Your task to perform on an android device: change keyboard looks Image 0: 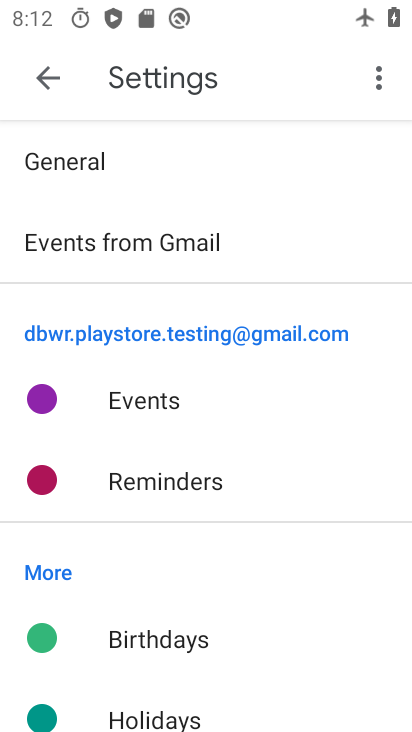
Step 0: press back button
Your task to perform on an android device: change keyboard looks Image 1: 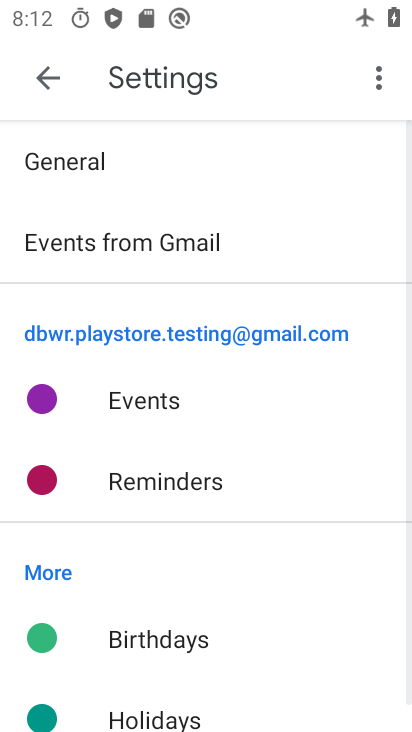
Step 1: press back button
Your task to perform on an android device: change keyboard looks Image 2: 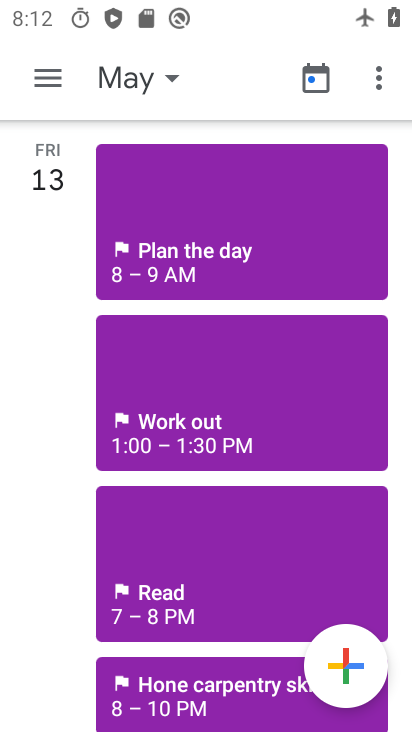
Step 2: press back button
Your task to perform on an android device: change keyboard looks Image 3: 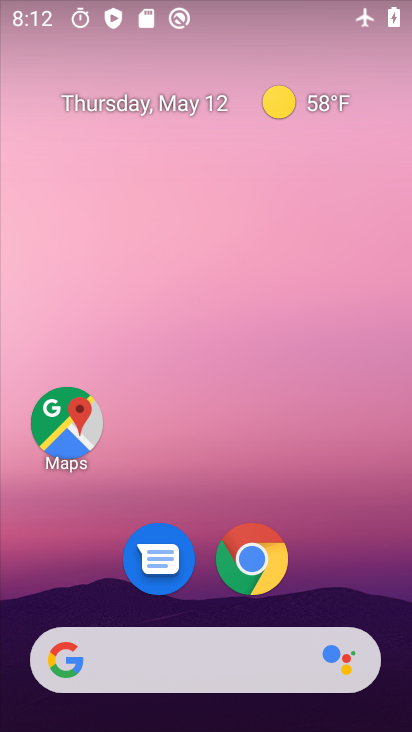
Step 3: drag from (314, 600) to (212, 36)
Your task to perform on an android device: change keyboard looks Image 4: 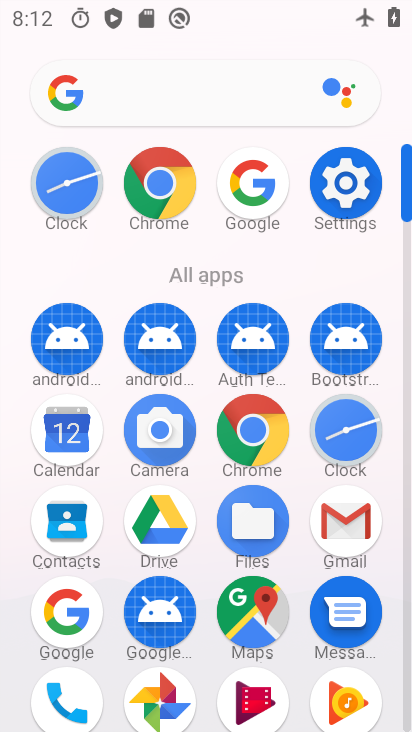
Step 4: click (347, 185)
Your task to perform on an android device: change keyboard looks Image 5: 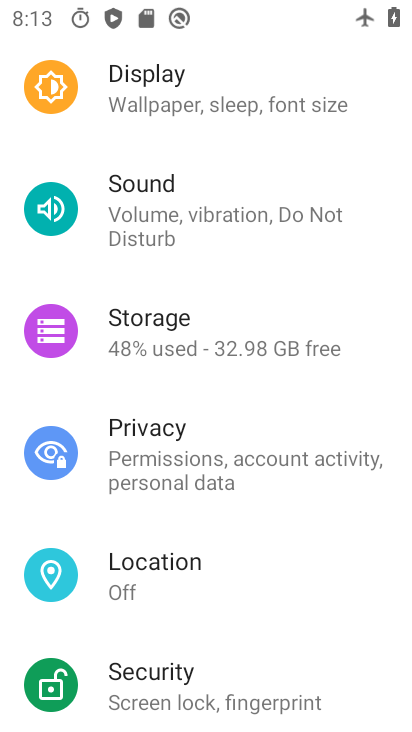
Step 5: drag from (233, 540) to (274, 397)
Your task to perform on an android device: change keyboard looks Image 6: 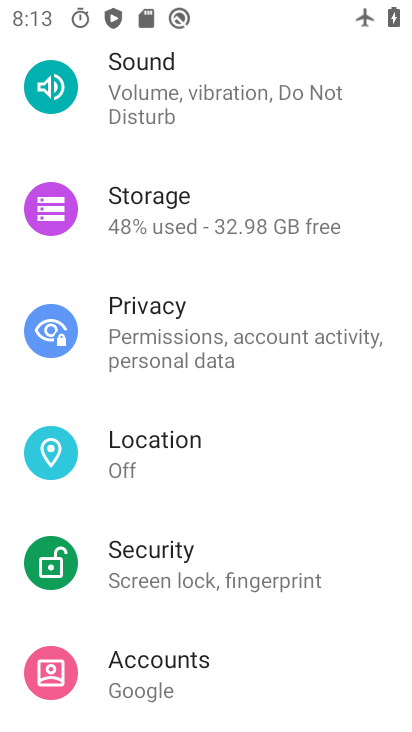
Step 6: drag from (187, 600) to (238, 475)
Your task to perform on an android device: change keyboard looks Image 7: 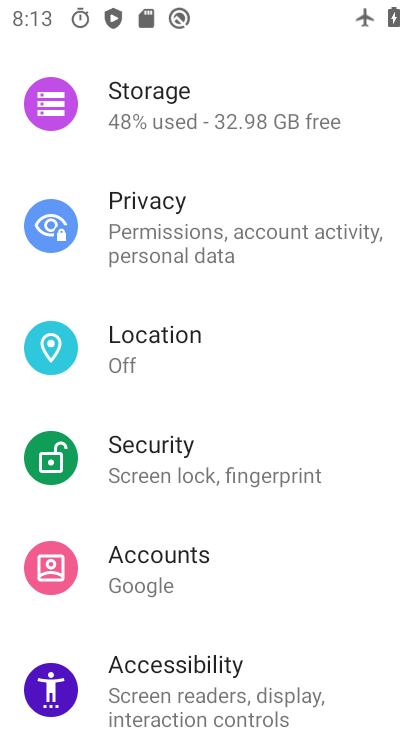
Step 7: drag from (184, 600) to (262, 495)
Your task to perform on an android device: change keyboard looks Image 8: 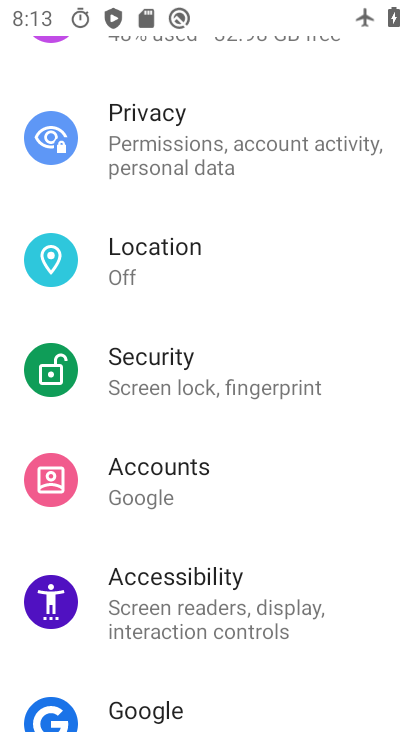
Step 8: drag from (223, 591) to (273, 498)
Your task to perform on an android device: change keyboard looks Image 9: 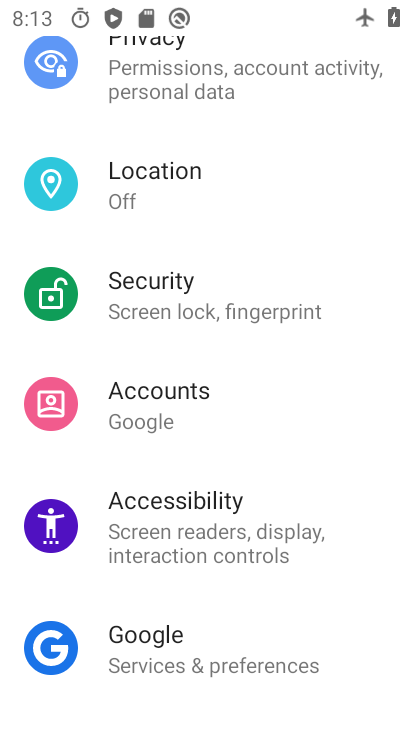
Step 9: drag from (195, 608) to (270, 457)
Your task to perform on an android device: change keyboard looks Image 10: 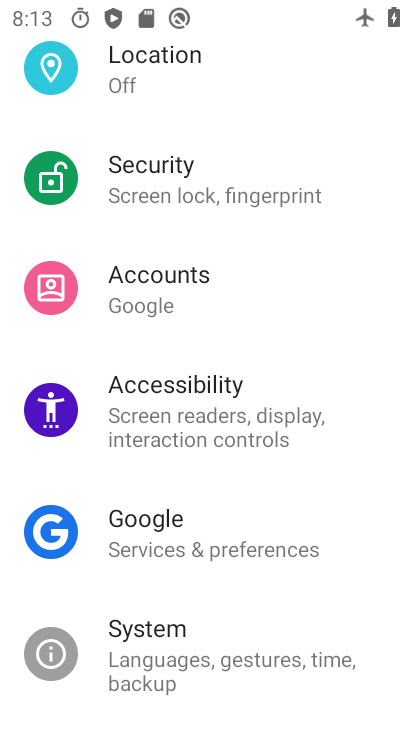
Step 10: drag from (194, 607) to (251, 506)
Your task to perform on an android device: change keyboard looks Image 11: 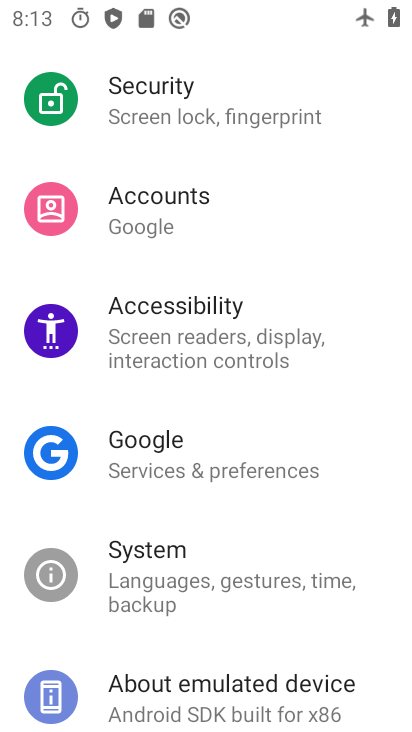
Step 11: click (149, 566)
Your task to perform on an android device: change keyboard looks Image 12: 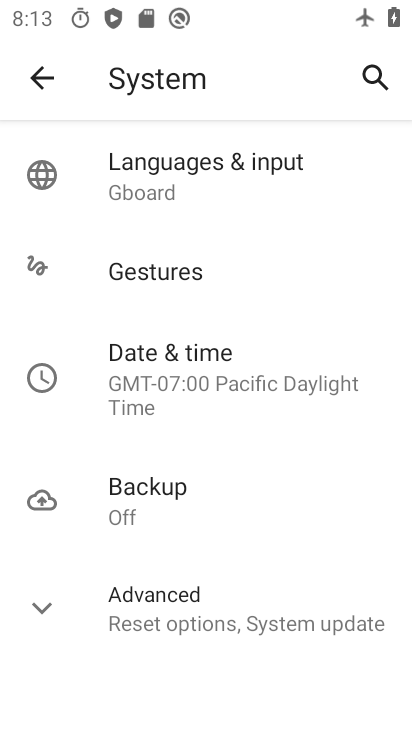
Step 12: click (165, 172)
Your task to perform on an android device: change keyboard looks Image 13: 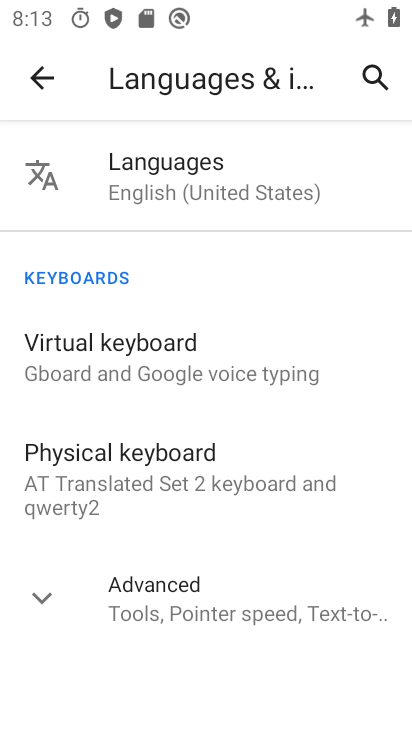
Step 13: click (137, 362)
Your task to perform on an android device: change keyboard looks Image 14: 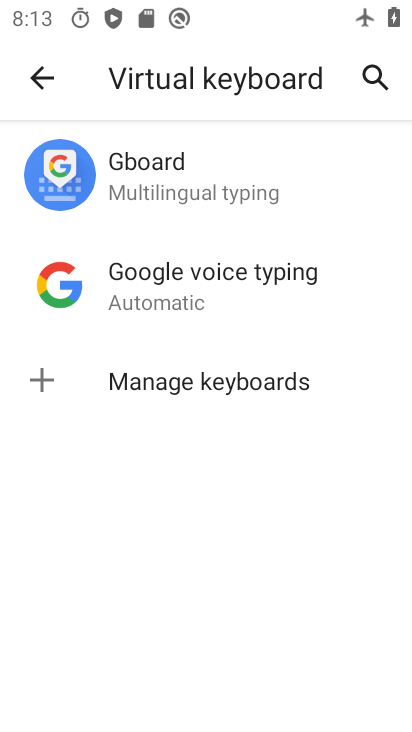
Step 14: click (165, 184)
Your task to perform on an android device: change keyboard looks Image 15: 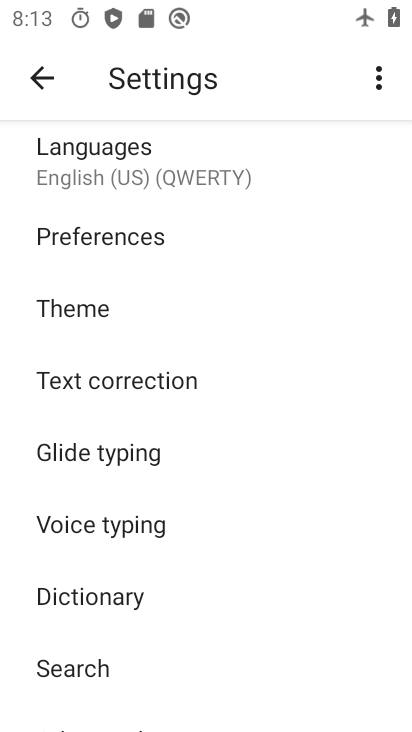
Step 15: click (78, 315)
Your task to perform on an android device: change keyboard looks Image 16: 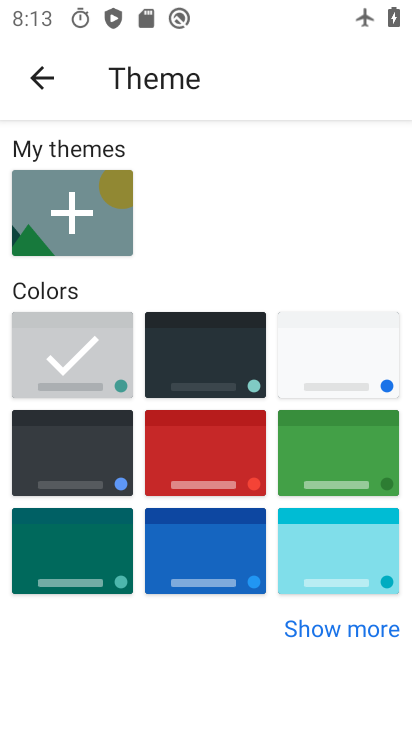
Step 16: click (235, 461)
Your task to perform on an android device: change keyboard looks Image 17: 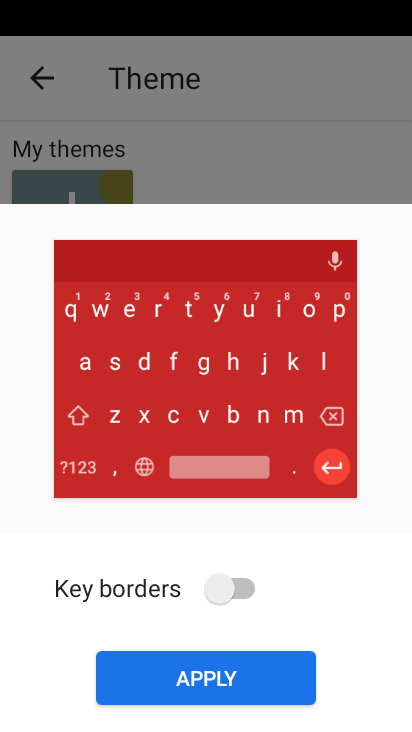
Step 17: click (230, 588)
Your task to perform on an android device: change keyboard looks Image 18: 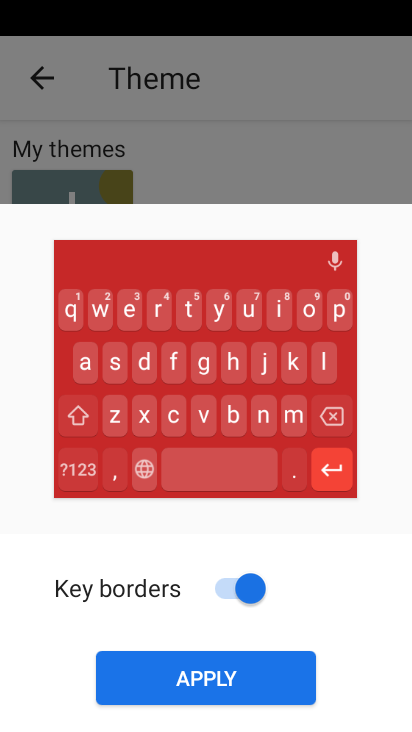
Step 18: click (217, 682)
Your task to perform on an android device: change keyboard looks Image 19: 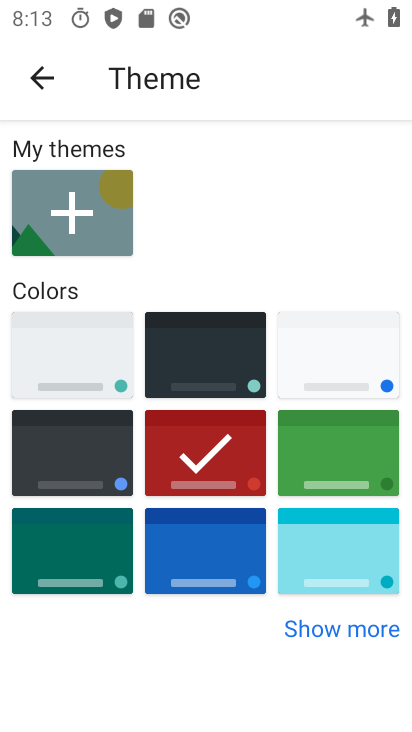
Step 19: task complete